Your task to perform on an android device: Open sound settings Image 0: 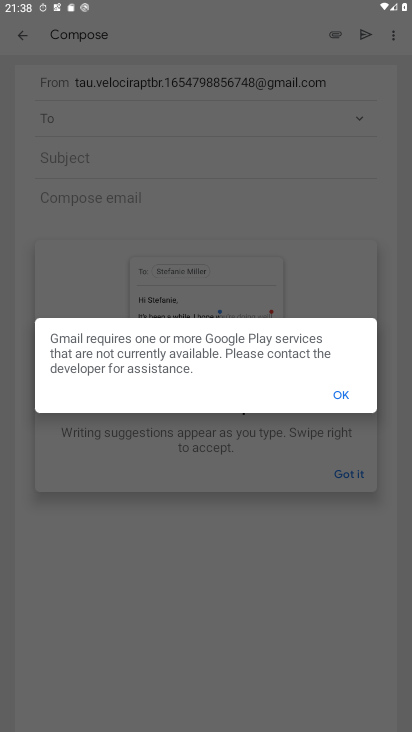
Step 0: press home button
Your task to perform on an android device: Open sound settings Image 1: 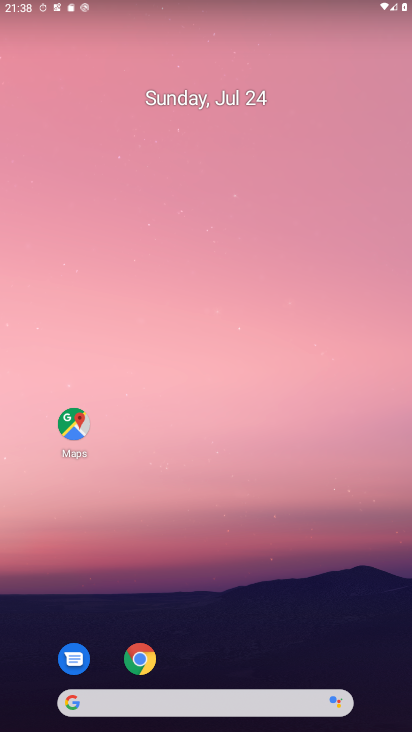
Step 1: drag from (221, 727) to (202, 179)
Your task to perform on an android device: Open sound settings Image 2: 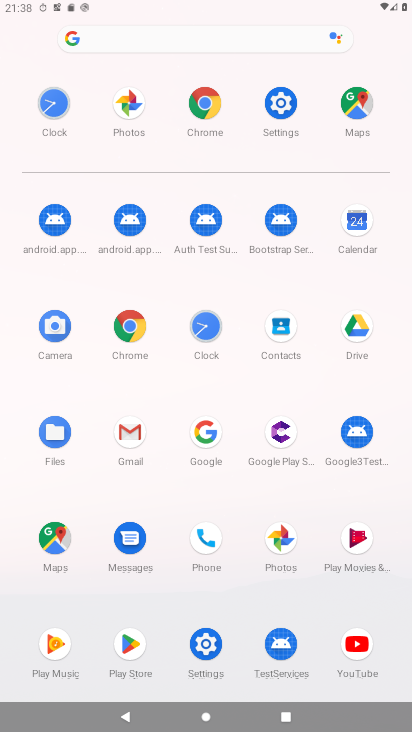
Step 2: click (277, 98)
Your task to perform on an android device: Open sound settings Image 3: 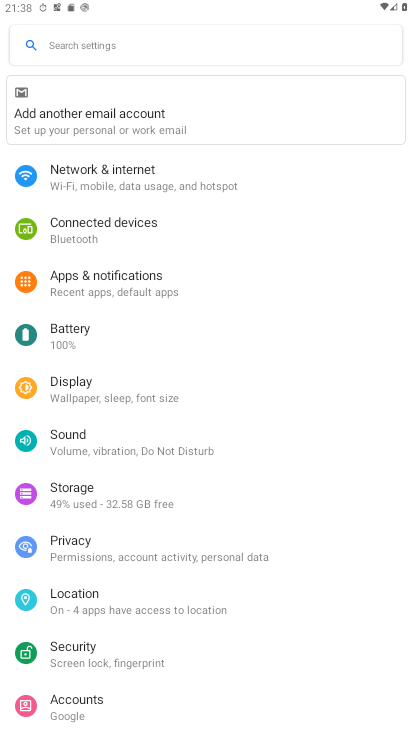
Step 3: click (74, 454)
Your task to perform on an android device: Open sound settings Image 4: 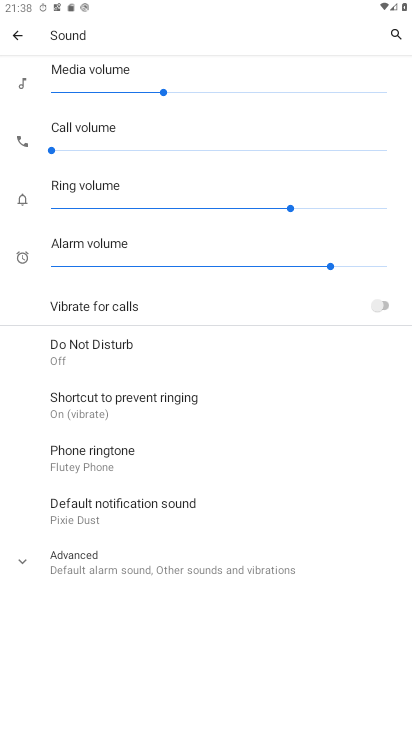
Step 4: task complete